Your task to perform on an android device: Open Android settings Image 0: 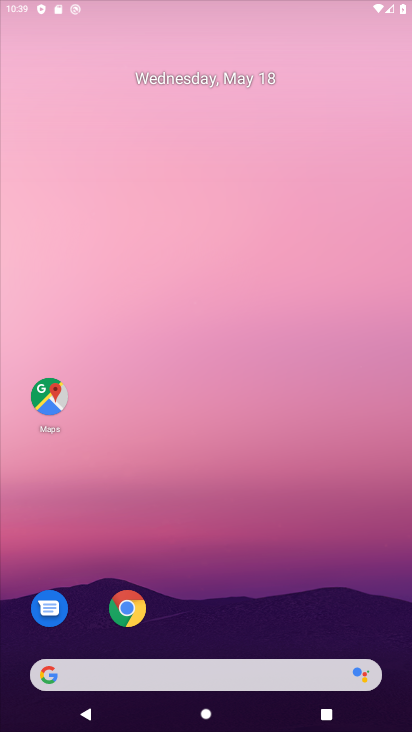
Step 0: press home button
Your task to perform on an android device: Open Android settings Image 1: 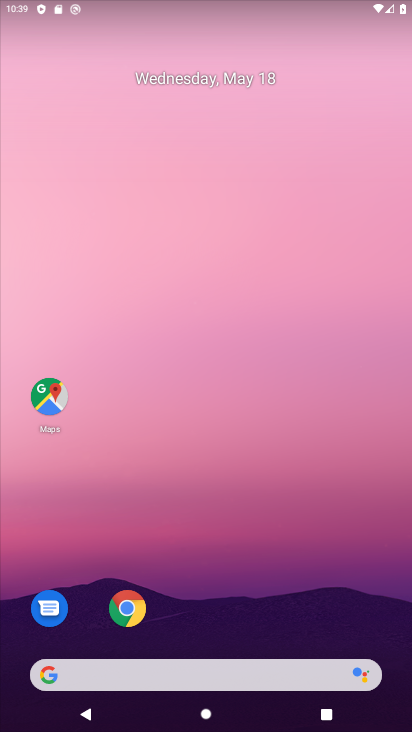
Step 1: drag from (199, 606) to (331, 54)
Your task to perform on an android device: Open Android settings Image 2: 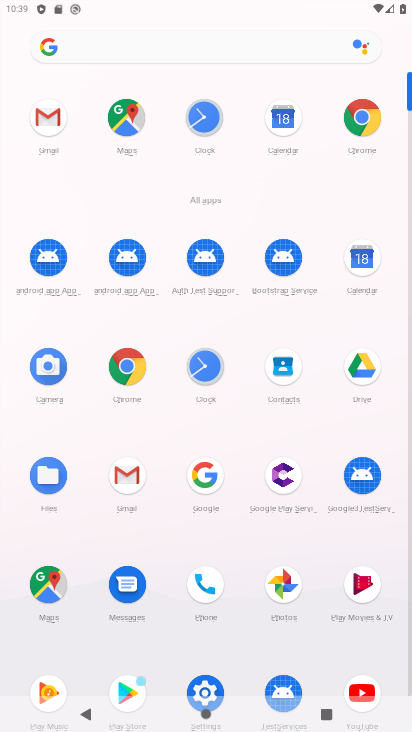
Step 2: click (204, 678)
Your task to perform on an android device: Open Android settings Image 3: 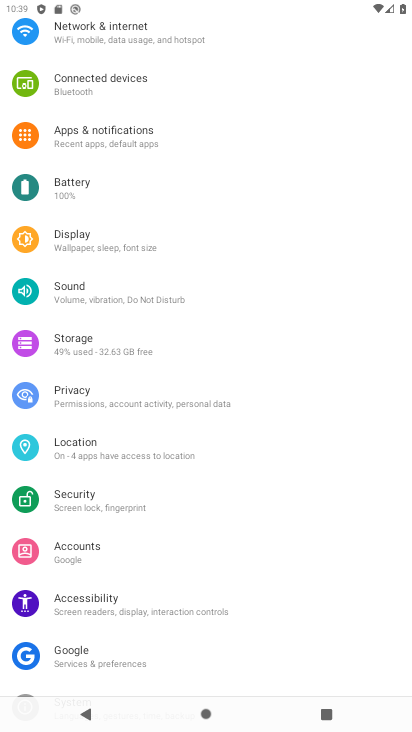
Step 3: drag from (149, 648) to (196, 147)
Your task to perform on an android device: Open Android settings Image 4: 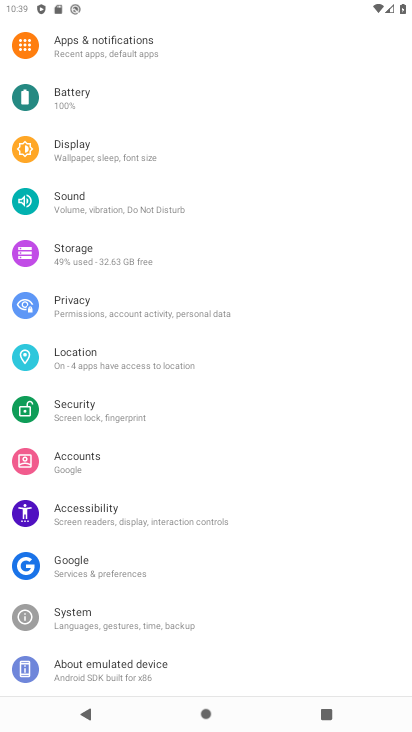
Step 4: click (88, 670)
Your task to perform on an android device: Open Android settings Image 5: 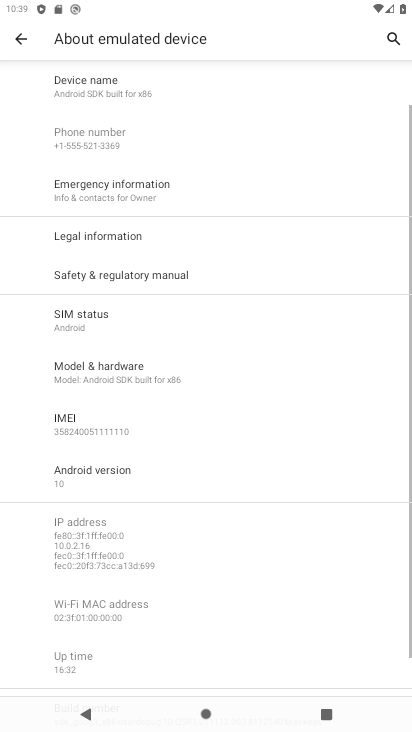
Step 5: click (124, 462)
Your task to perform on an android device: Open Android settings Image 6: 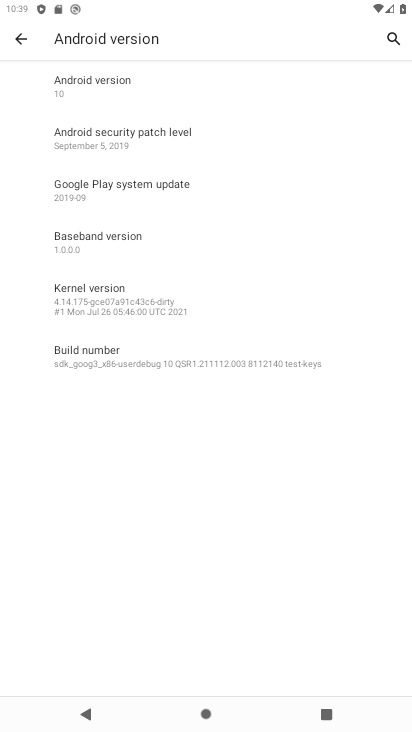
Step 6: task complete